Your task to perform on an android device: turn pop-ups off in chrome Image 0: 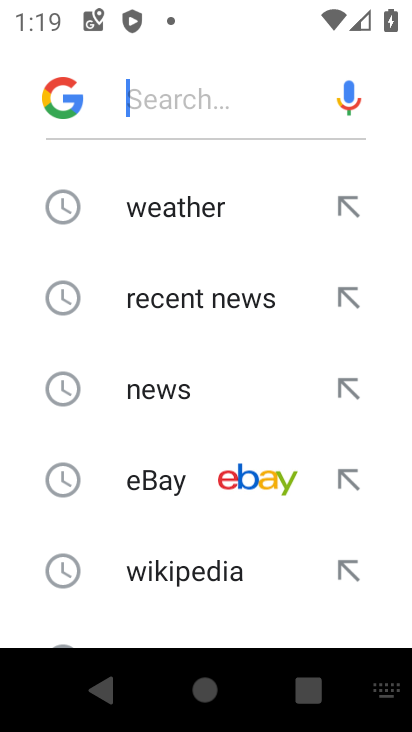
Step 0: press home button
Your task to perform on an android device: turn pop-ups off in chrome Image 1: 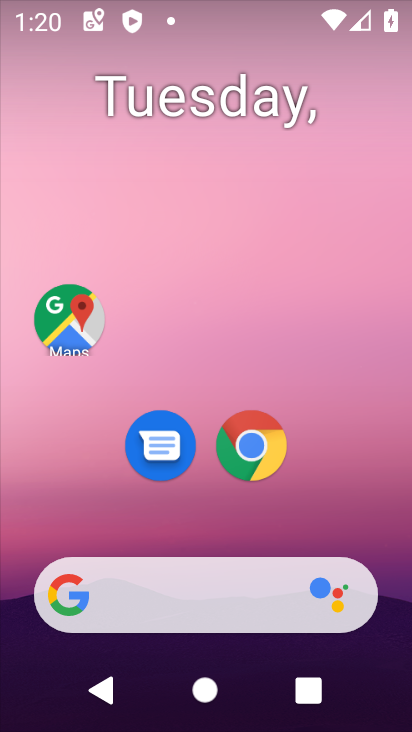
Step 1: click (261, 442)
Your task to perform on an android device: turn pop-ups off in chrome Image 2: 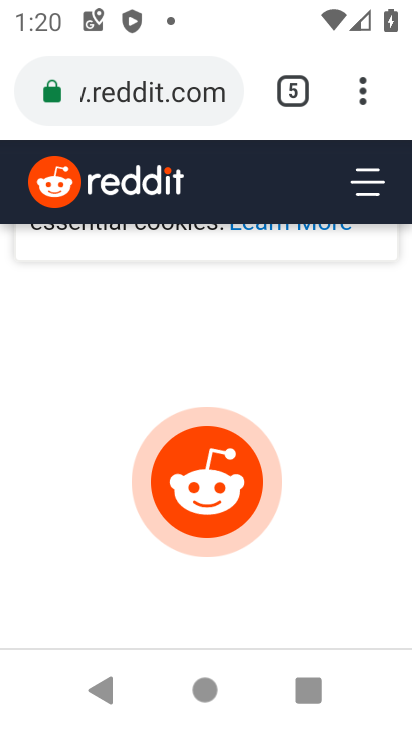
Step 2: drag from (364, 92) to (103, 473)
Your task to perform on an android device: turn pop-ups off in chrome Image 3: 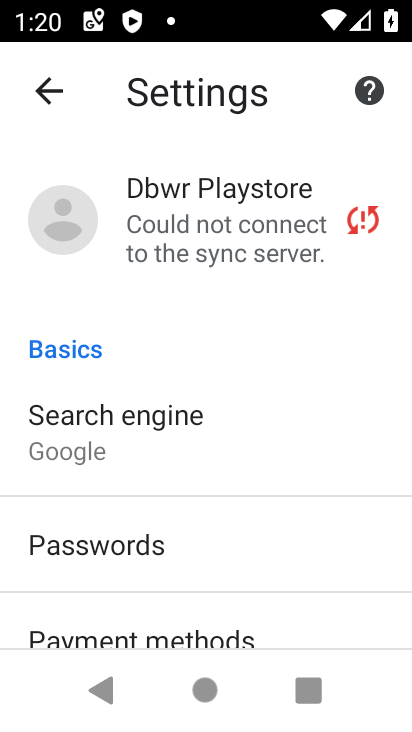
Step 3: drag from (201, 582) to (263, 240)
Your task to perform on an android device: turn pop-ups off in chrome Image 4: 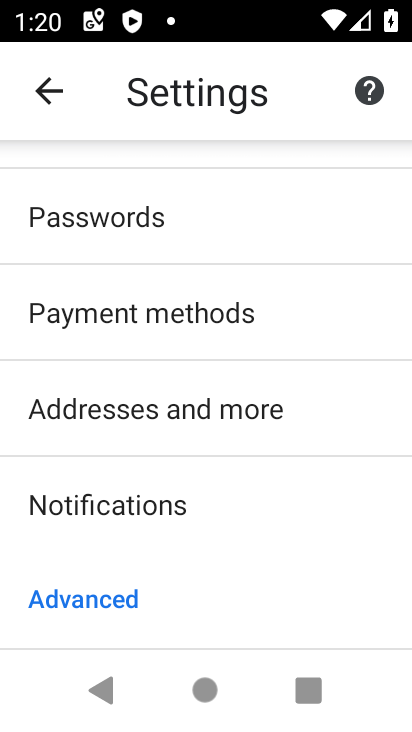
Step 4: drag from (129, 566) to (195, 170)
Your task to perform on an android device: turn pop-ups off in chrome Image 5: 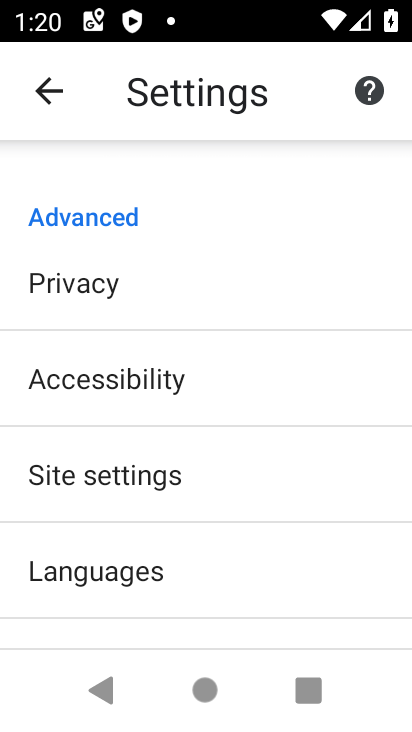
Step 5: click (146, 480)
Your task to perform on an android device: turn pop-ups off in chrome Image 6: 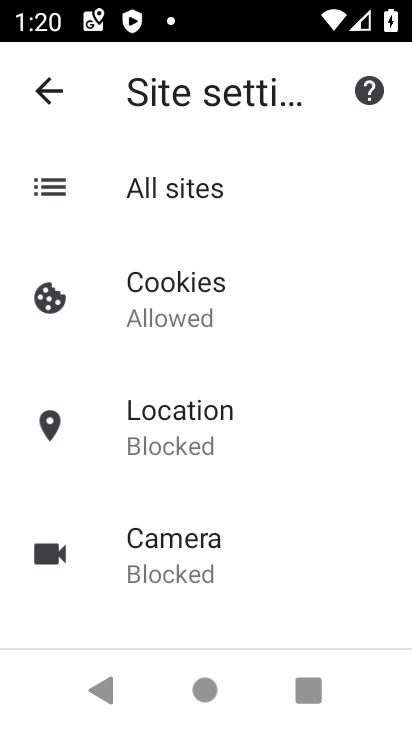
Step 6: drag from (191, 514) to (199, 165)
Your task to perform on an android device: turn pop-ups off in chrome Image 7: 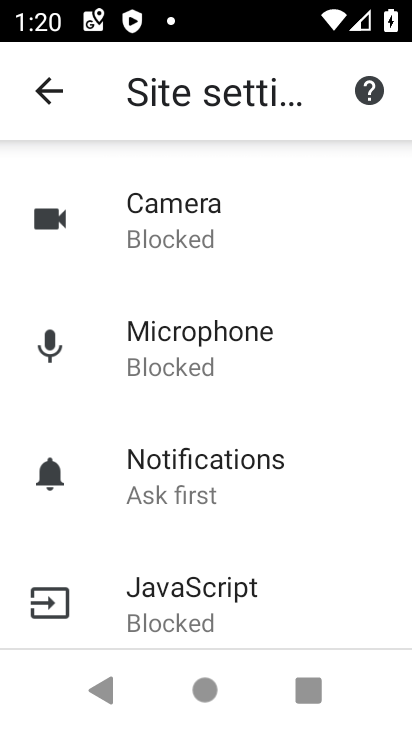
Step 7: drag from (191, 537) to (216, 235)
Your task to perform on an android device: turn pop-ups off in chrome Image 8: 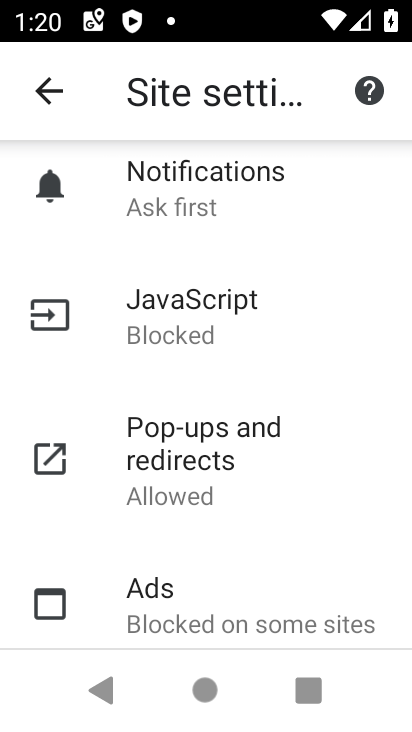
Step 8: click (150, 453)
Your task to perform on an android device: turn pop-ups off in chrome Image 9: 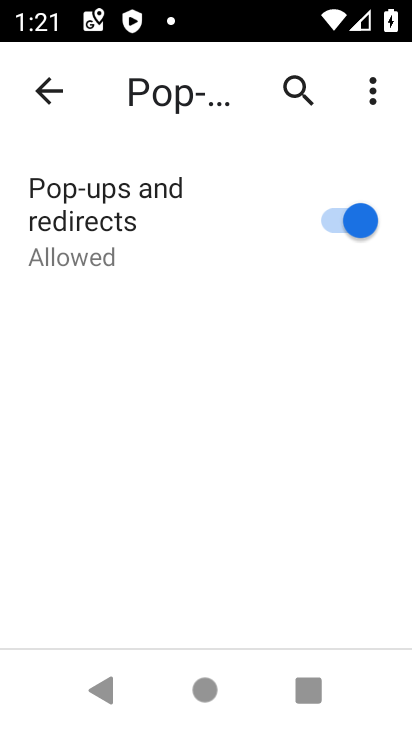
Step 9: click (334, 222)
Your task to perform on an android device: turn pop-ups off in chrome Image 10: 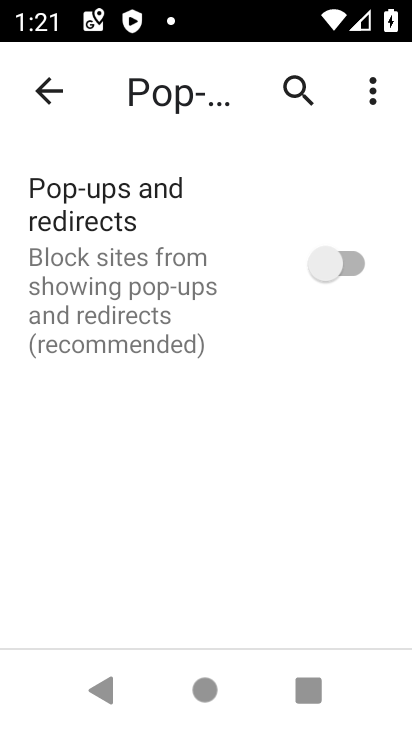
Step 10: task complete